Your task to perform on an android device: What's the weather? Image 0: 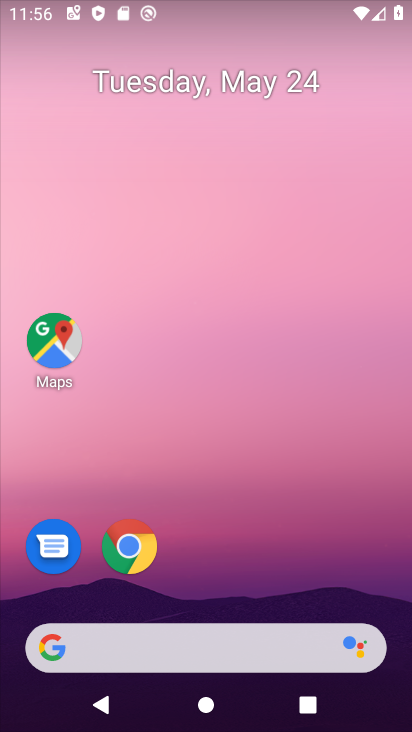
Step 0: drag from (257, 600) to (217, 206)
Your task to perform on an android device: What's the weather? Image 1: 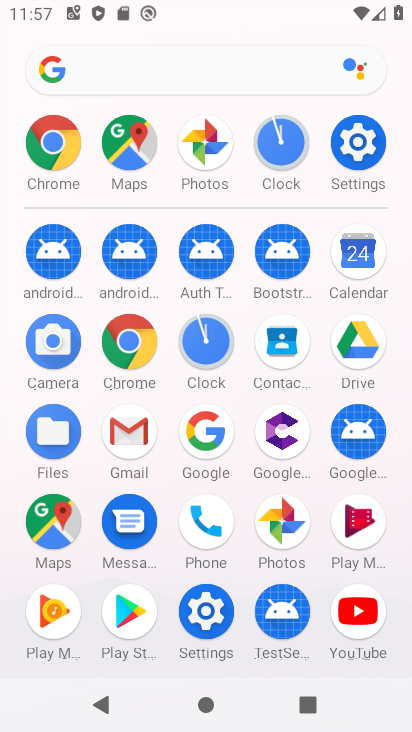
Step 1: click (50, 137)
Your task to perform on an android device: What's the weather? Image 2: 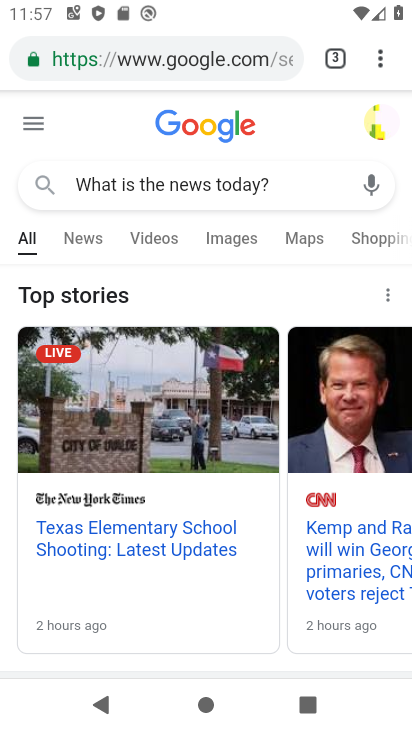
Step 2: click (167, 56)
Your task to perform on an android device: What's the weather? Image 3: 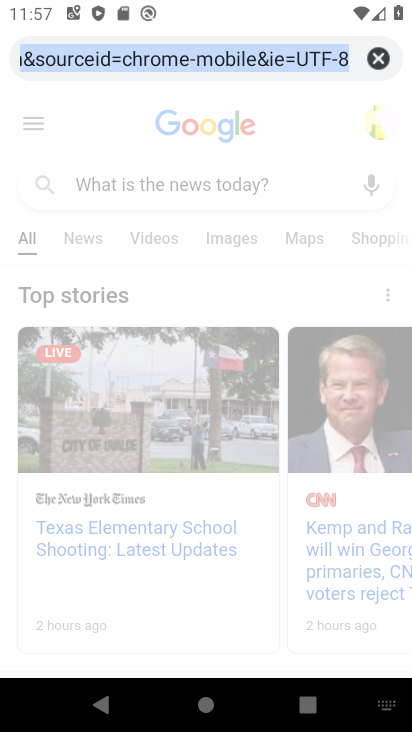
Step 3: type "What's the weather?"
Your task to perform on an android device: What's the weather? Image 4: 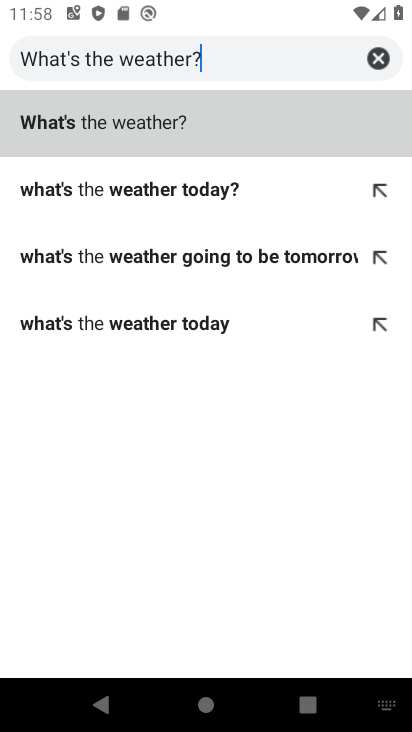
Step 4: click (136, 120)
Your task to perform on an android device: What's the weather? Image 5: 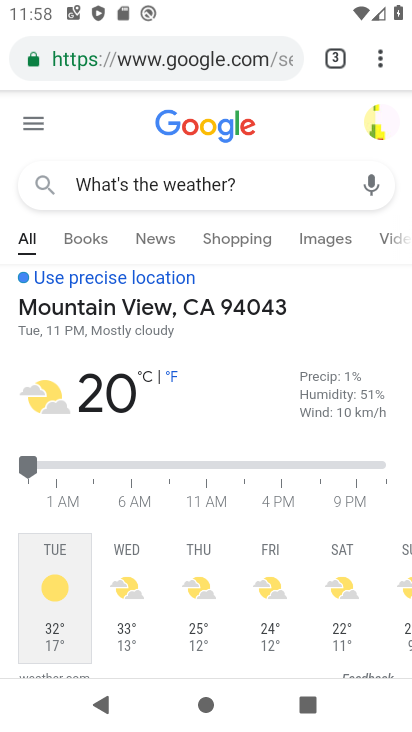
Step 5: task complete